Your task to perform on an android device: Is it going to rain tomorrow? Image 0: 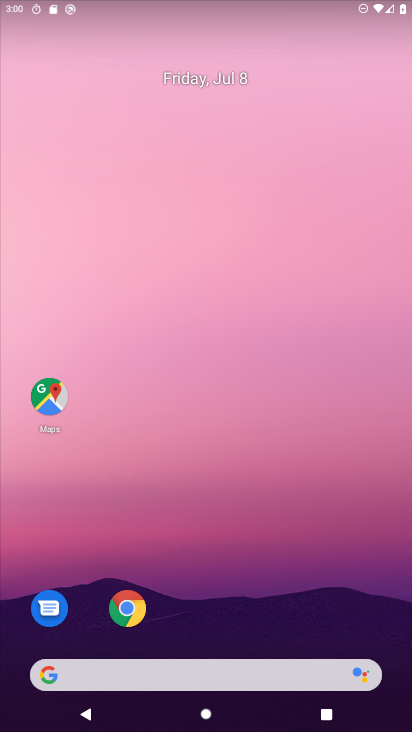
Step 0: drag from (258, 723) to (256, 100)
Your task to perform on an android device: Is it going to rain tomorrow? Image 1: 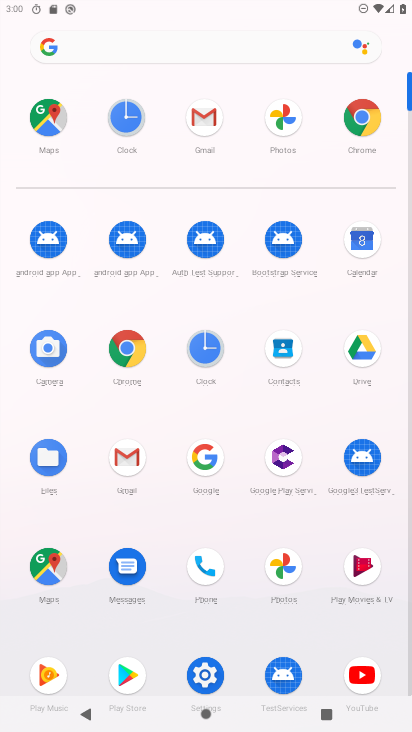
Step 1: click (219, 450)
Your task to perform on an android device: Is it going to rain tomorrow? Image 2: 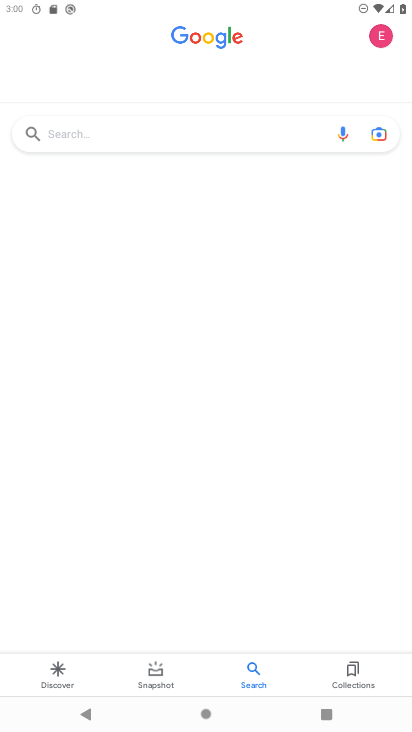
Step 2: click (178, 136)
Your task to perform on an android device: Is it going to rain tomorrow? Image 3: 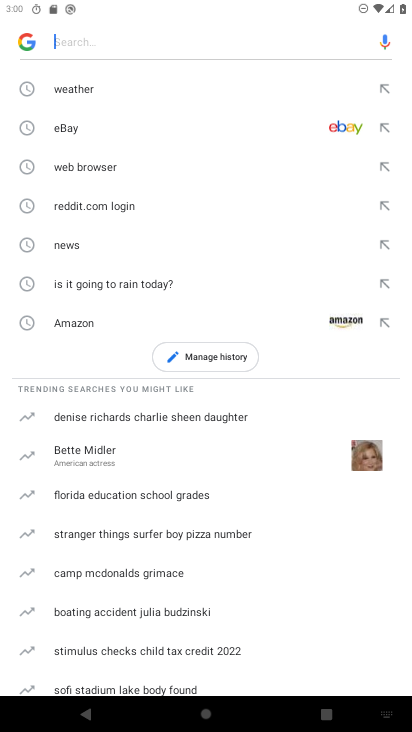
Step 3: click (84, 94)
Your task to perform on an android device: Is it going to rain tomorrow? Image 4: 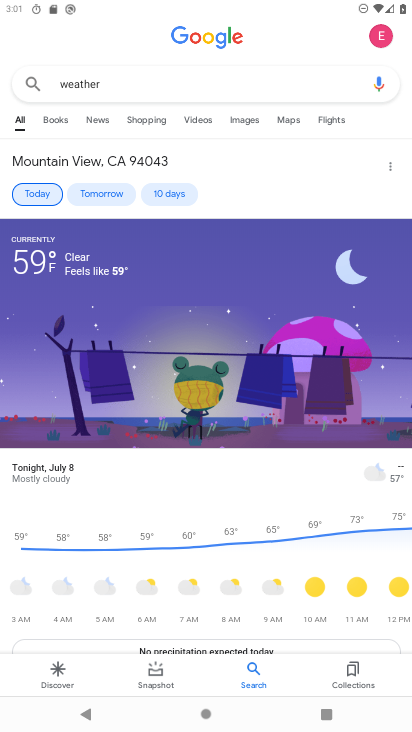
Step 4: click (93, 190)
Your task to perform on an android device: Is it going to rain tomorrow? Image 5: 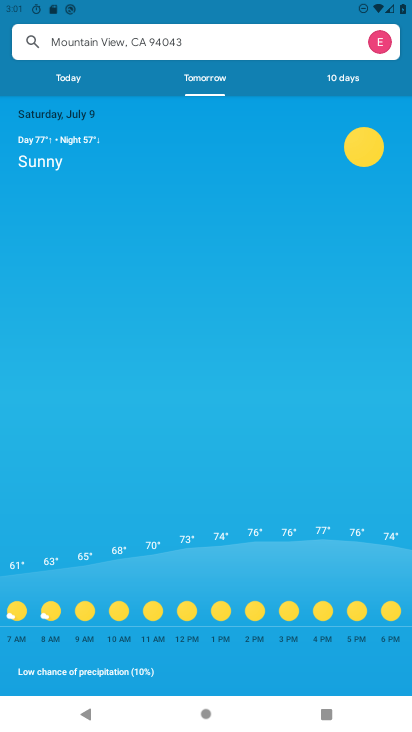
Step 5: task complete